Your task to perform on an android device: change the clock display to analog Image 0: 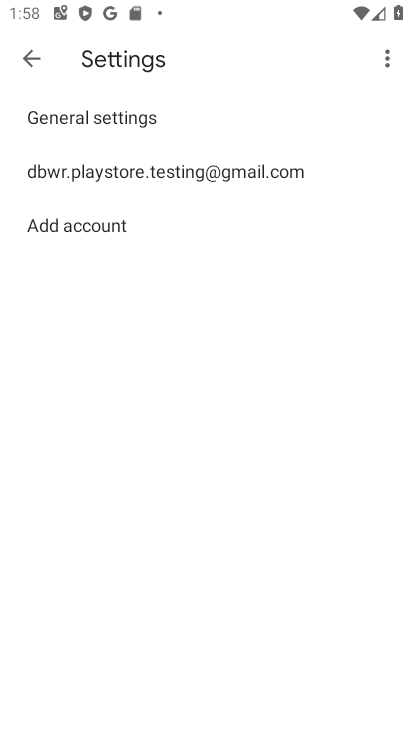
Step 0: press home button
Your task to perform on an android device: change the clock display to analog Image 1: 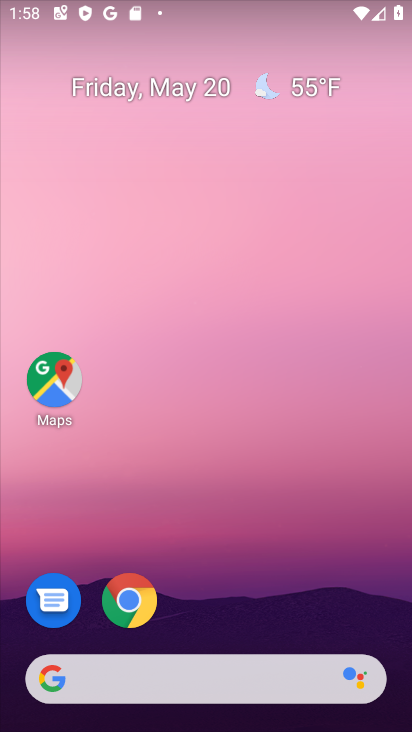
Step 1: drag from (222, 615) to (303, 141)
Your task to perform on an android device: change the clock display to analog Image 2: 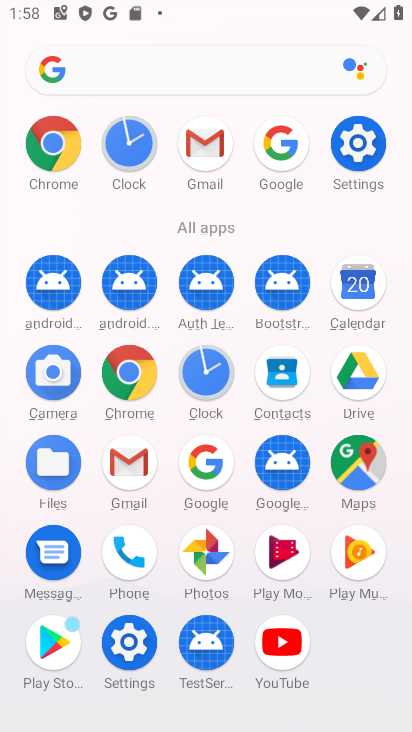
Step 2: click (221, 375)
Your task to perform on an android device: change the clock display to analog Image 3: 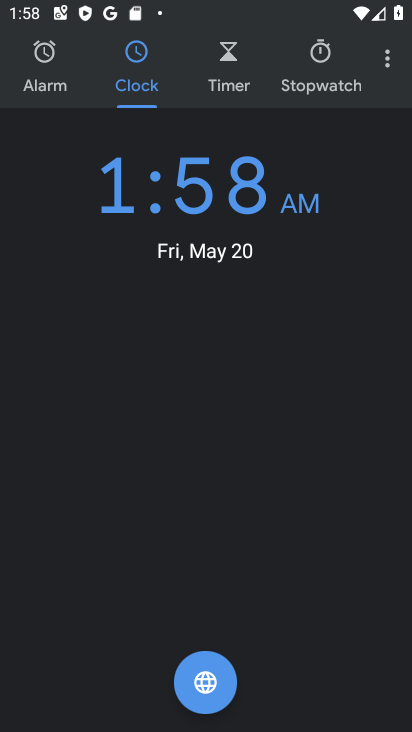
Step 3: click (393, 74)
Your task to perform on an android device: change the clock display to analog Image 4: 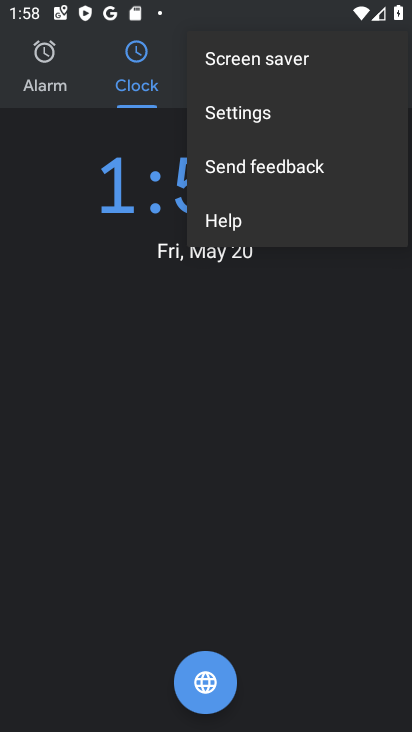
Step 4: click (273, 120)
Your task to perform on an android device: change the clock display to analog Image 5: 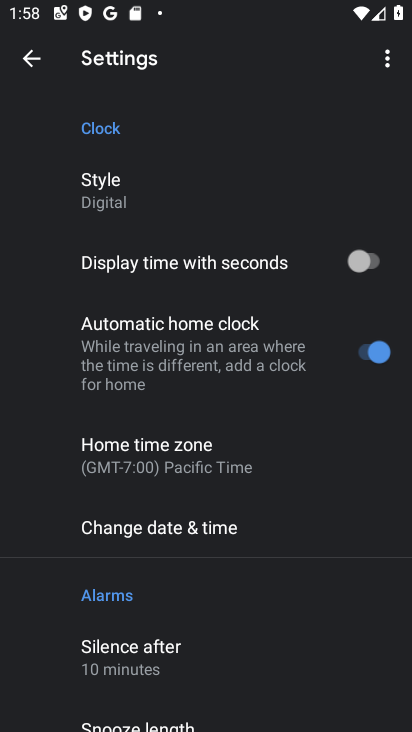
Step 5: click (166, 194)
Your task to perform on an android device: change the clock display to analog Image 6: 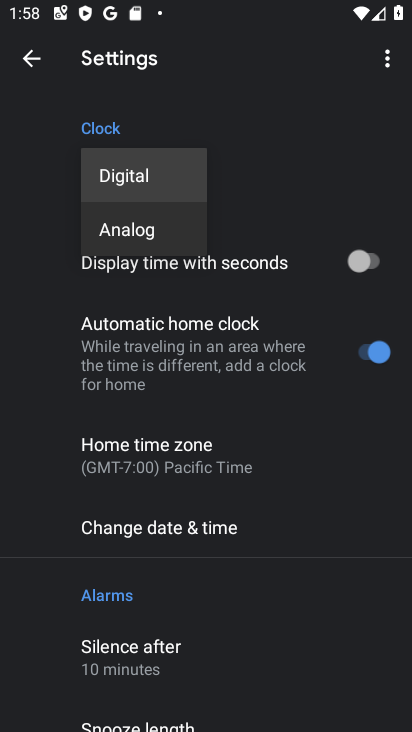
Step 6: click (134, 216)
Your task to perform on an android device: change the clock display to analog Image 7: 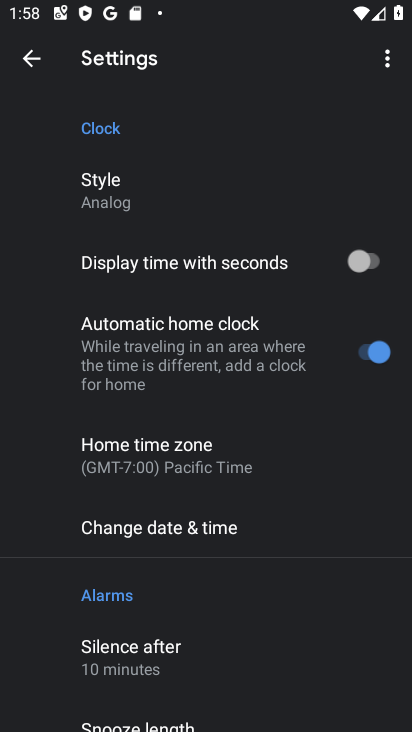
Step 7: task complete